Your task to perform on an android device: Do I have any events tomorrow? Image 0: 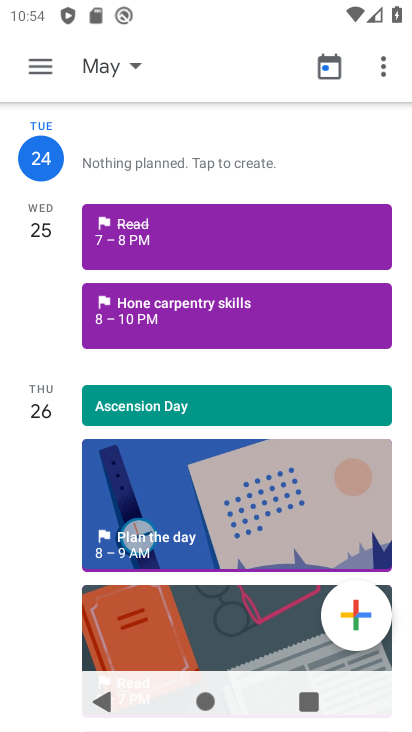
Step 0: drag from (239, 376) to (234, 290)
Your task to perform on an android device: Do I have any events tomorrow? Image 1: 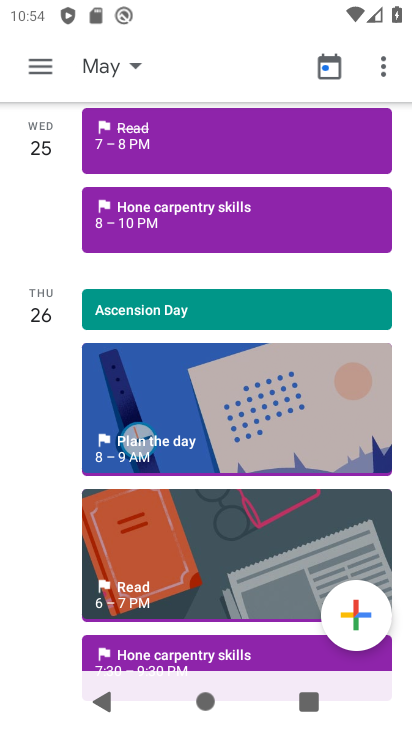
Step 1: task complete